Your task to perform on an android device: toggle pop-ups in chrome Image 0: 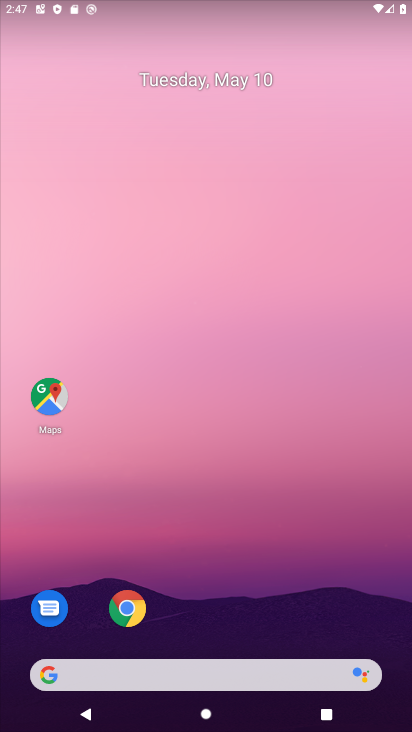
Step 0: click (140, 605)
Your task to perform on an android device: toggle pop-ups in chrome Image 1: 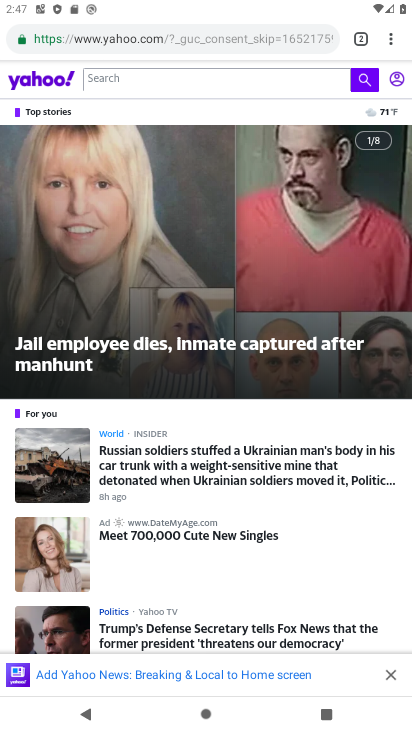
Step 1: click (390, 43)
Your task to perform on an android device: toggle pop-ups in chrome Image 2: 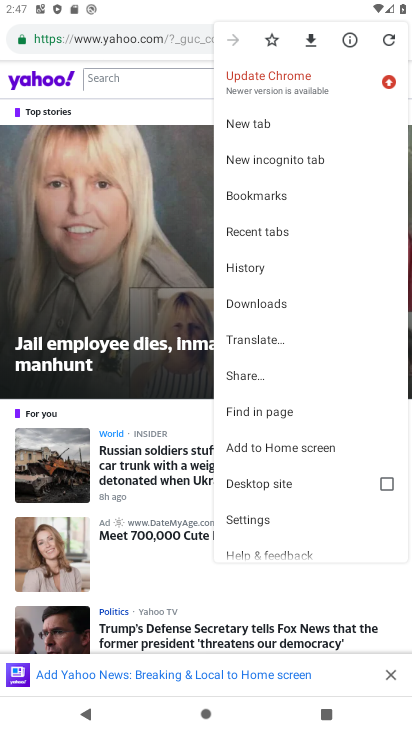
Step 2: click (259, 525)
Your task to perform on an android device: toggle pop-ups in chrome Image 3: 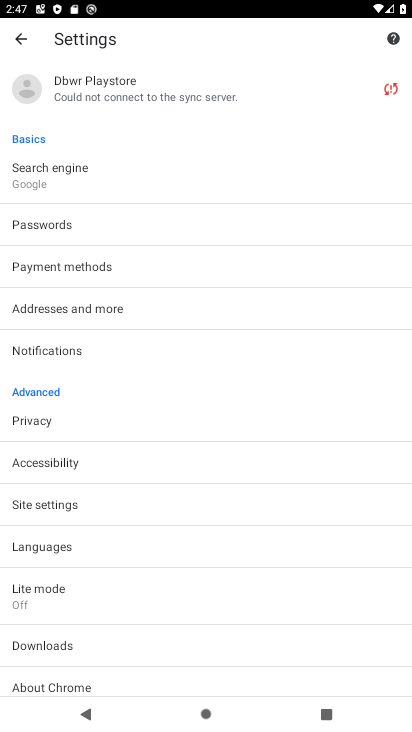
Step 3: click (47, 510)
Your task to perform on an android device: toggle pop-ups in chrome Image 4: 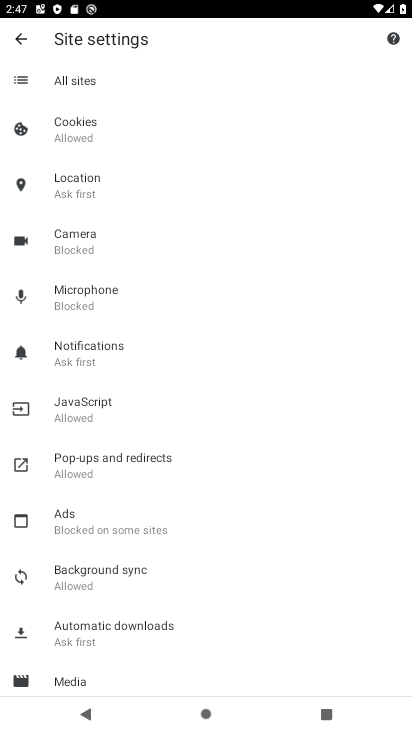
Step 4: click (80, 461)
Your task to perform on an android device: toggle pop-ups in chrome Image 5: 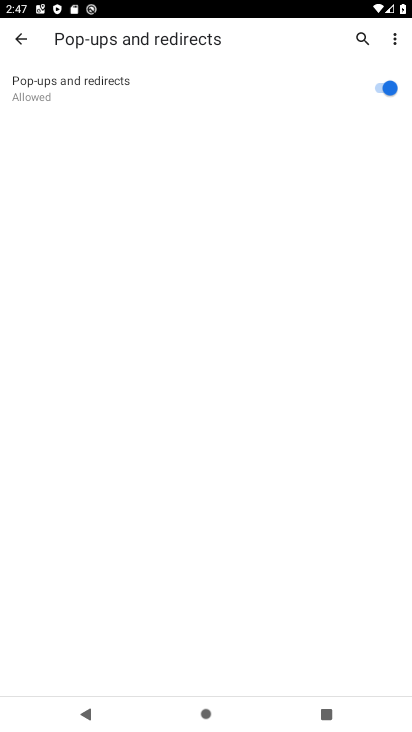
Step 5: click (359, 82)
Your task to perform on an android device: toggle pop-ups in chrome Image 6: 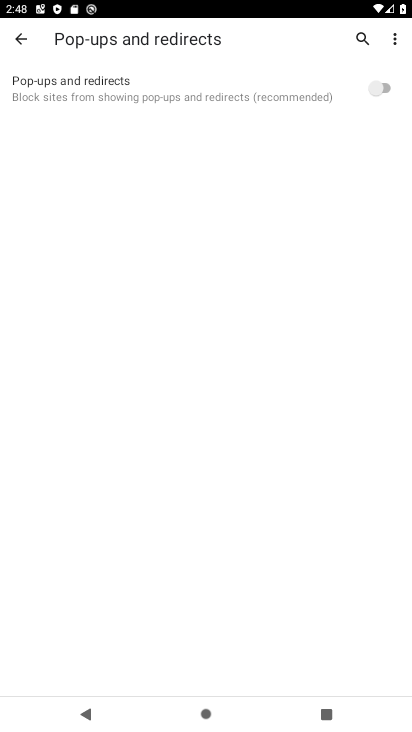
Step 6: task complete